Your task to perform on an android device: turn smart compose on in the gmail app Image 0: 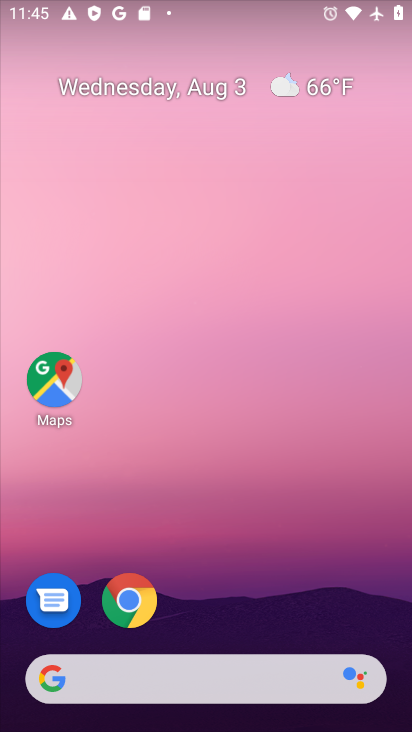
Step 0: drag from (164, 628) to (79, 13)
Your task to perform on an android device: turn smart compose on in the gmail app Image 1: 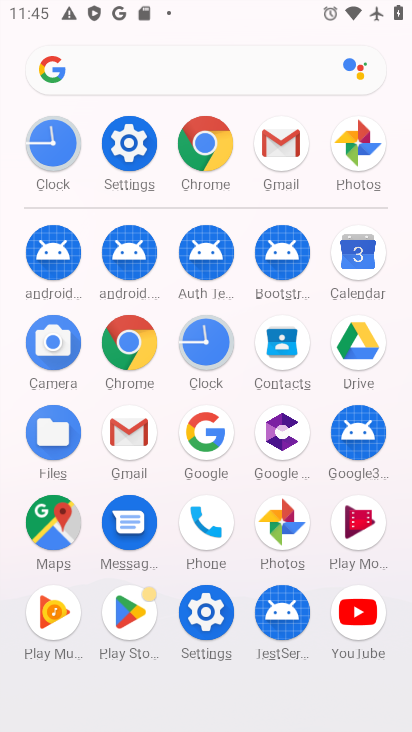
Step 1: click (128, 447)
Your task to perform on an android device: turn smart compose on in the gmail app Image 2: 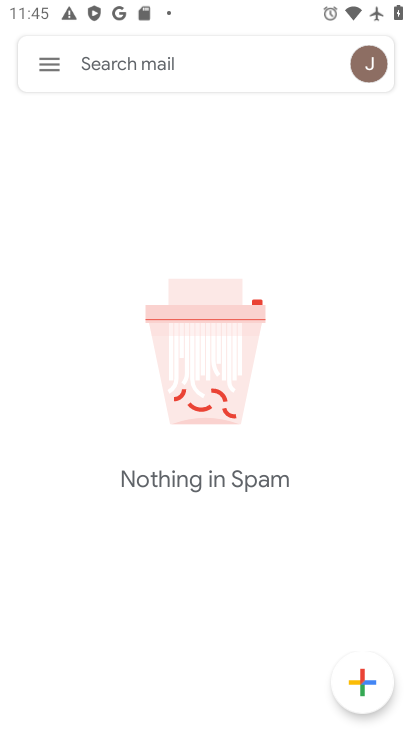
Step 2: click (41, 70)
Your task to perform on an android device: turn smart compose on in the gmail app Image 3: 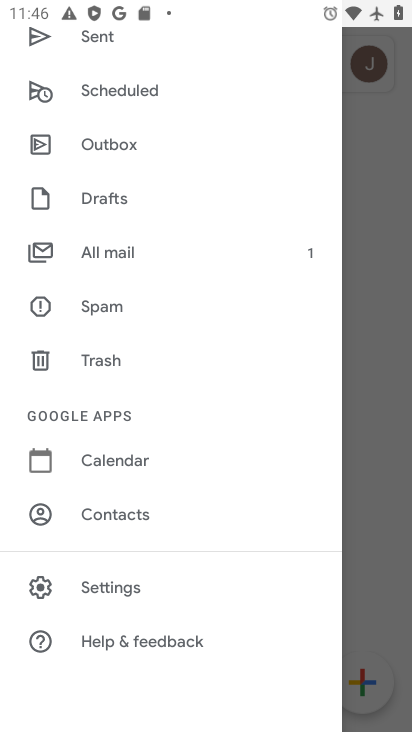
Step 3: click (38, 585)
Your task to perform on an android device: turn smart compose on in the gmail app Image 4: 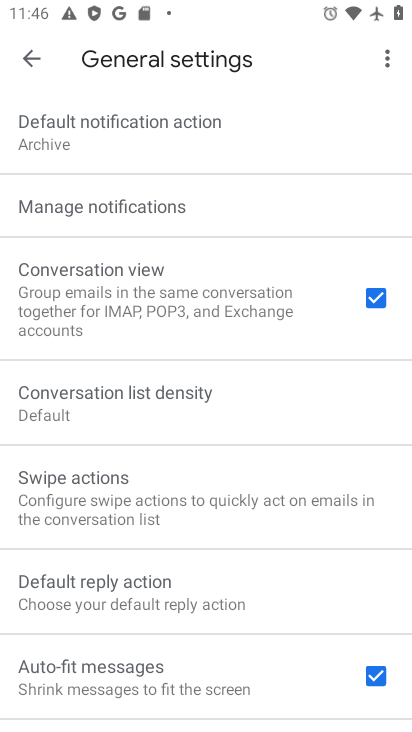
Step 4: drag from (38, 586) to (88, 318)
Your task to perform on an android device: turn smart compose on in the gmail app Image 5: 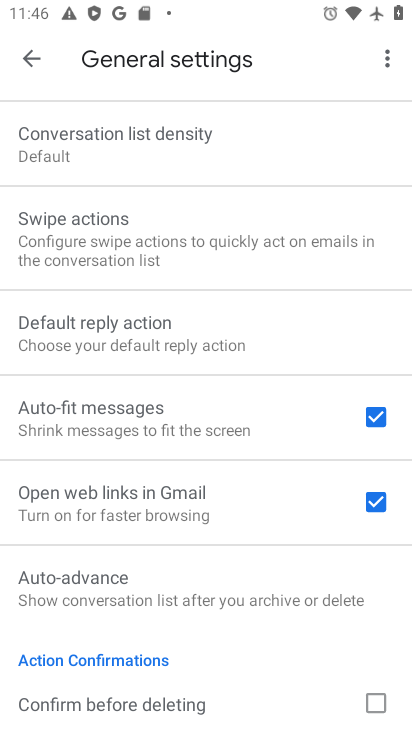
Step 5: click (24, 58)
Your task to perform on an android device: turn smart compose on in the gmail app Image 6: 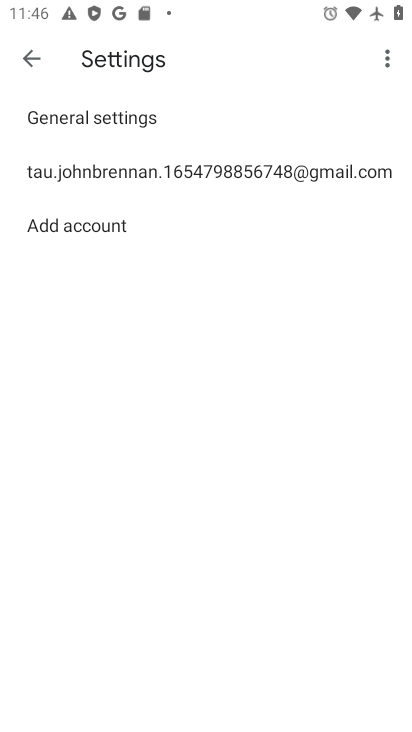
Step 6: click (87, 168)
Your task to perform on an android device: turn smart compose on in the gmail app Image 7: 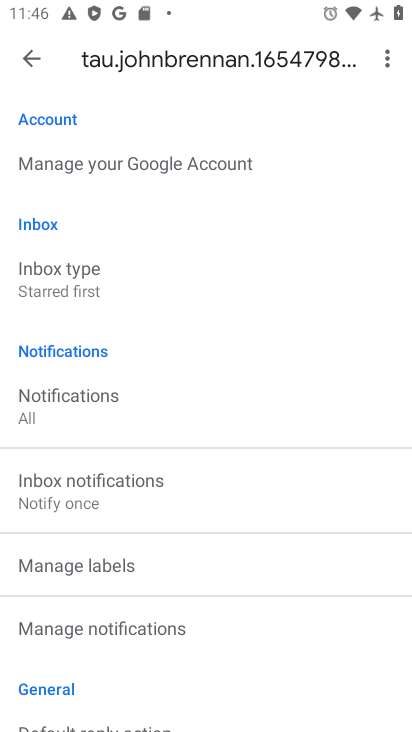
Step 7: task complete